Your task to perform on an android device: toggle pop-ups in chrome Image 0: 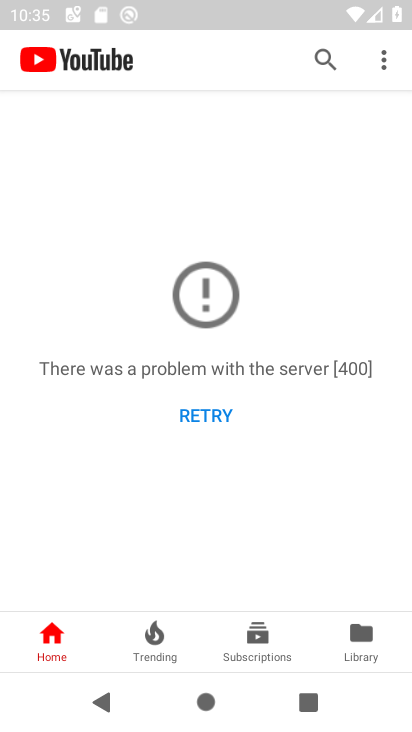
Step 0: press home button
Your task to perform on an android device: toggle pop-ups in chrome Image 1: 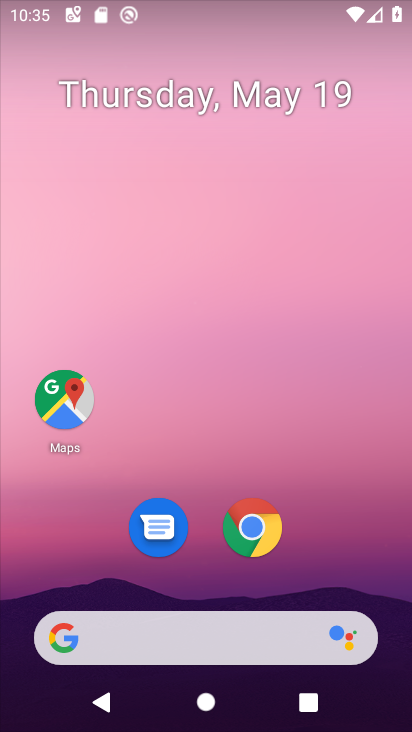
Step 1: click (268, 523)
Your task to perform on an android device: toggle pop-ups in chrome Image 2: 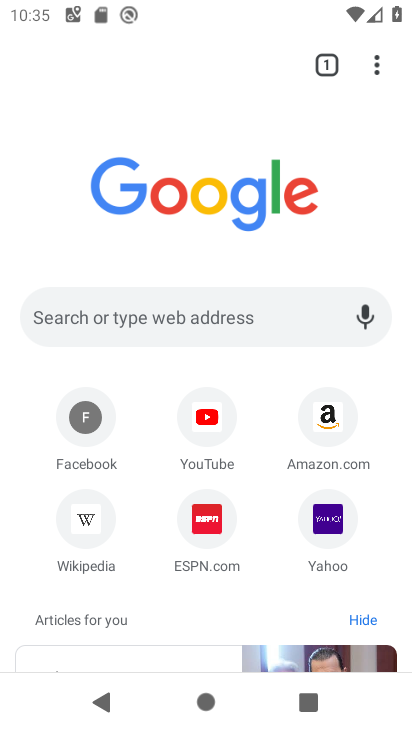
Step 2: click (376, 91)
Your task to perform on an android device: toggle pop-ups in chrome Image 3: 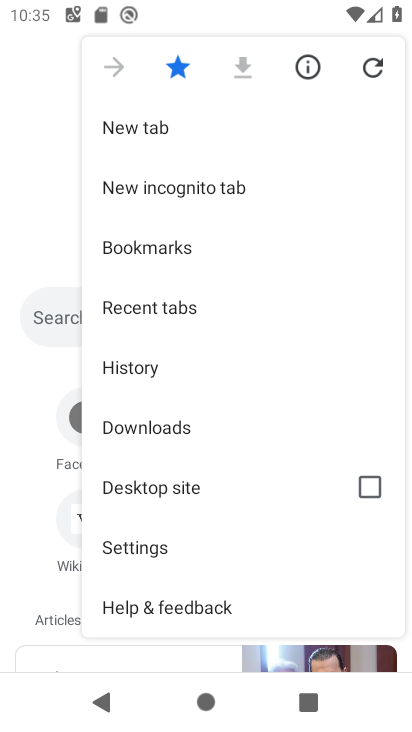
Step 3: click (198, 546)
Your task to perform on an android device: toggle pop-ups in chrome Image 4: 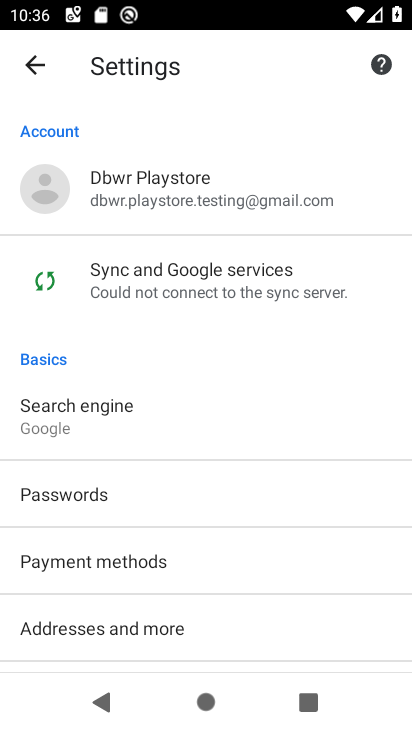
Step 4: drag from (261, 627) to (228, 111)
Your task to perform on an android device: toggle pop-ups in chrome Image 5: 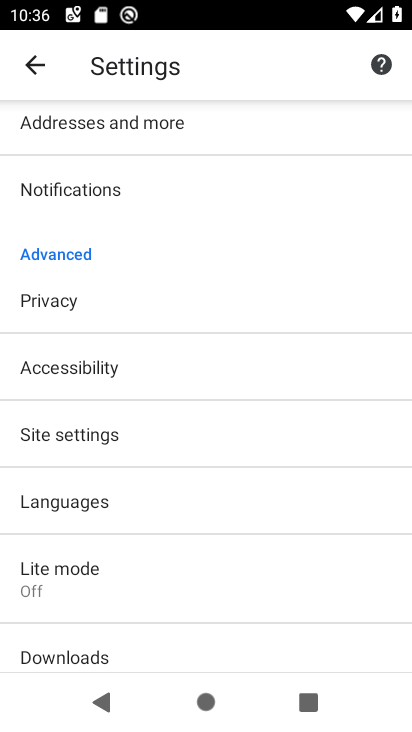
Step 5: click (204, 432)
Your task to perform on an android device: toggle pop-ups in chrome Image 6: 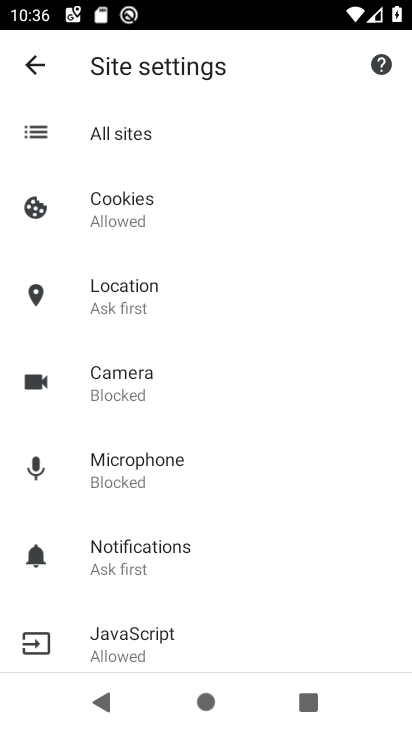
Step 6: click (190, 640)
Your task to perform on an android device: toggle pop-ups in chrome Image 7: 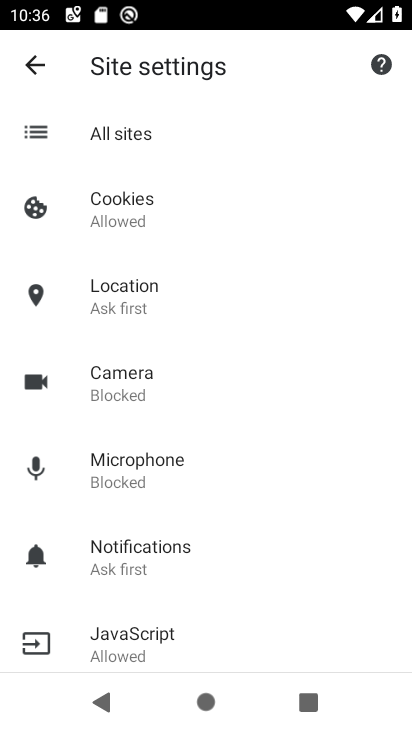
Step 7: drag from (190, 640) to (193, 288)
Your task to perform on an android device: toggle pop-ups in chrome Image 8: 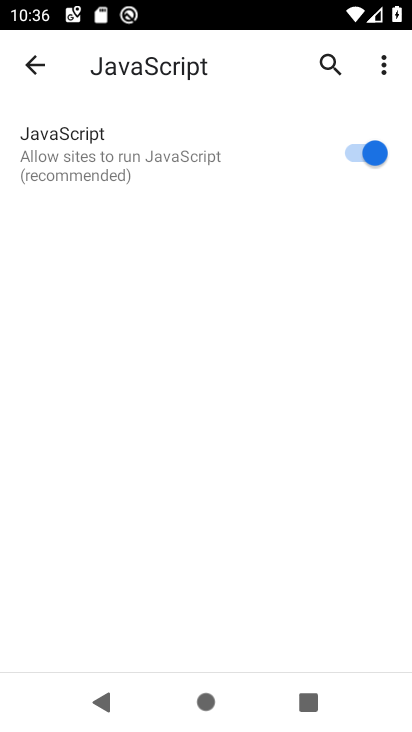
Step 8: click (46, 75)
Your task to perform on an android device: toggle pop-ups in chrome Image 9: 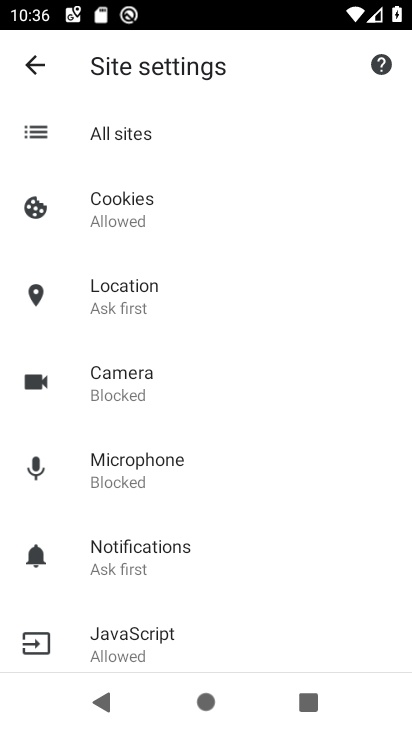
Step 9: drag from (252, 650) to (258, 189)
Your task to perform on an android device: toggle pop-ups in chrome Image 10: 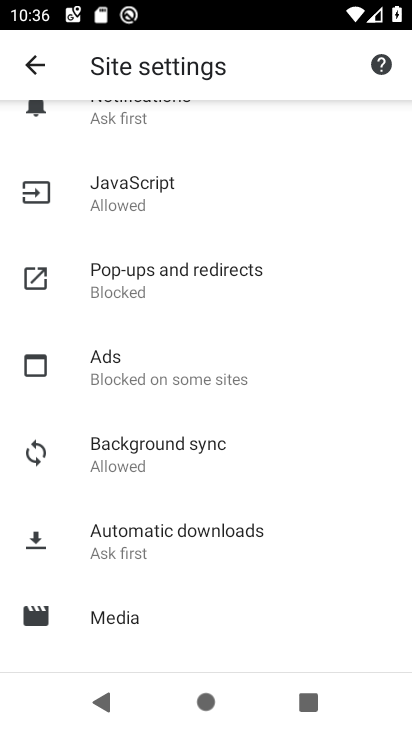
Step 10: click (257, 297)
Your task to perform on an android device: toggle pop-ups in chrome Image 11: 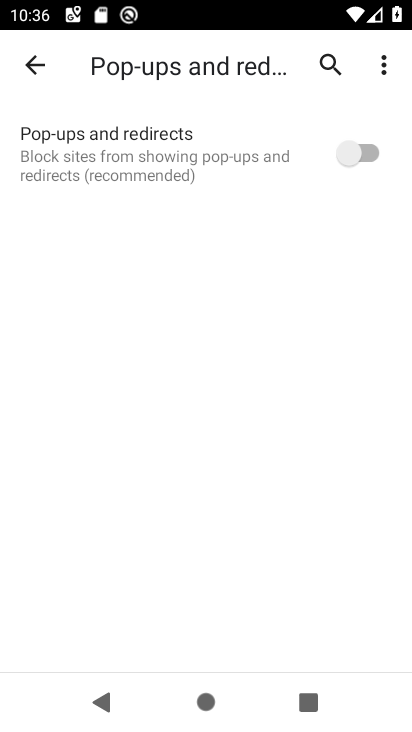
Step 11: click (371, 159)
Your task to perform on an android device: toggle pop-ups in chrome Image 12: 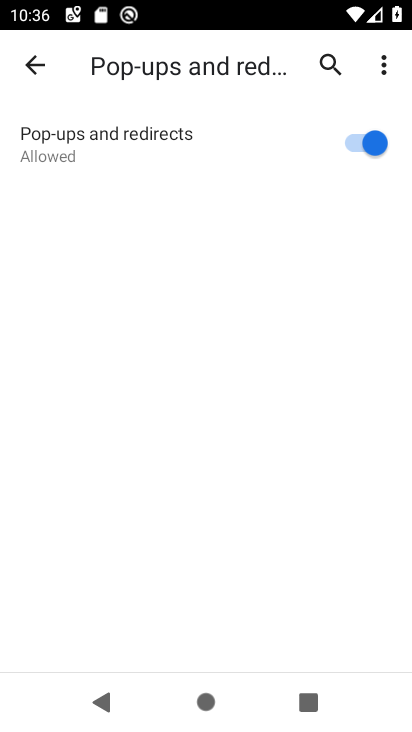
Step 12: task complete